Your task to perform on an android device: What's the weather going to be tomorrow? Image 0: 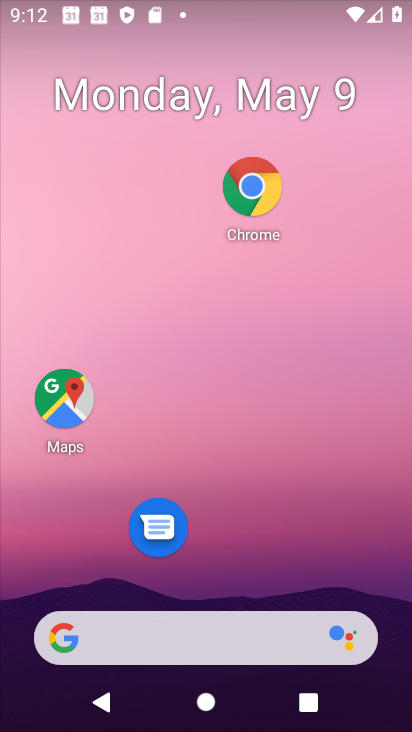
Step 0: drag from (197, 568) to (226, 33)
Your task to perform on an android device: What's the weather going to be tomorrow? Image 1: 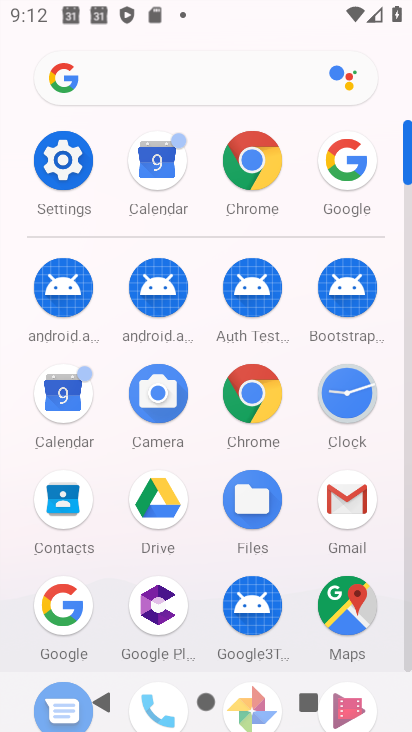
Step 1: click (65, 601)
Your task to perform on an android device: What's the weather going to be tomorrow? Image 2: 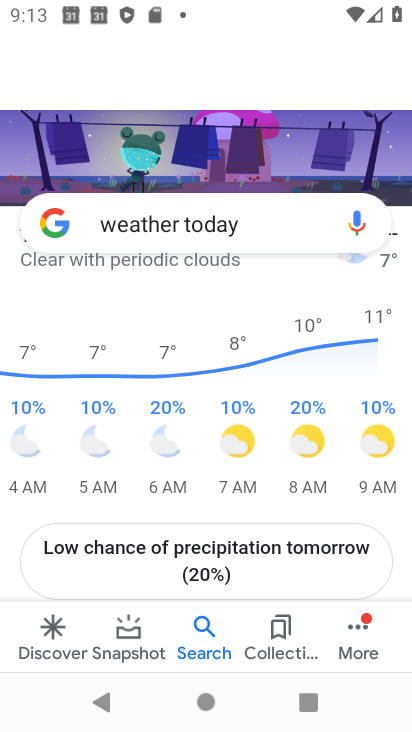
Step 2: drag from (181, 432) to (180, 255)
Your task to perform on an android device: What's the weather going to be tomorrow? Image 3: 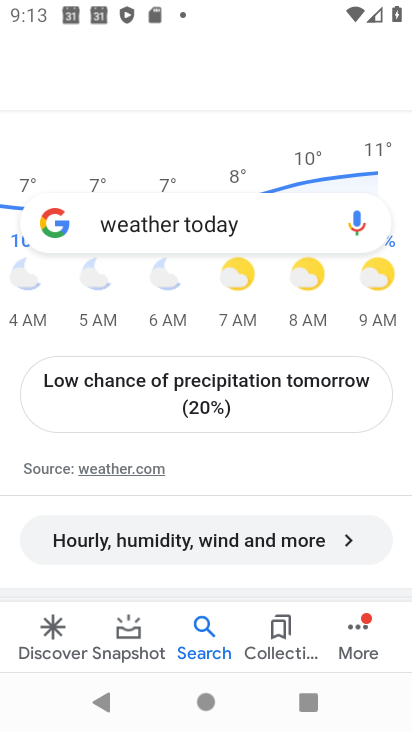
Step 3: drag from (198, 367) to (195, 641)
Your task to perform on an android device: What's the weather going to be tomorrow? Image 4: 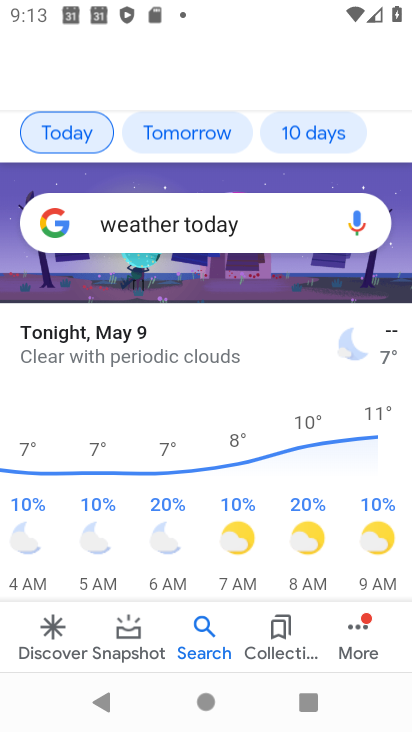
Step 4: click (197, 132)
Your task to perform on an android device: What's the weather going to be tomorrow? Image 5: 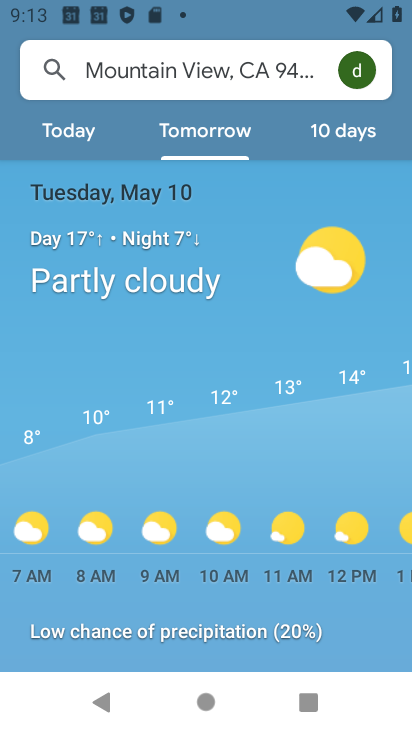
Step 5: task complete